Your task to perform on an android device: open app "The Home Depot" Image 0: 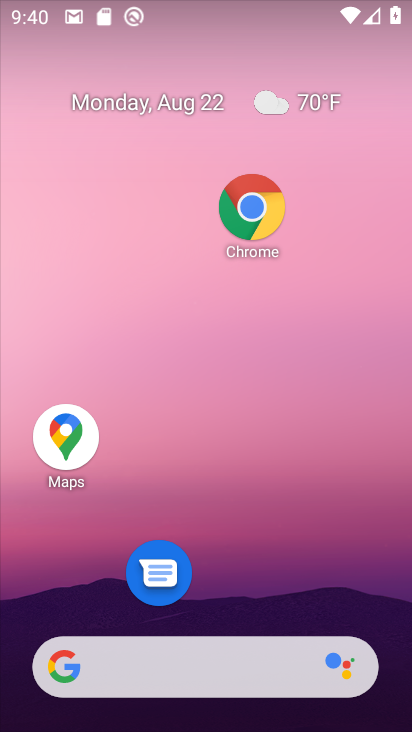
Step 0: drag from (235, 594) to (282, 8)
Your task to perform on an android device: open app "The Home Depot" Image 1: 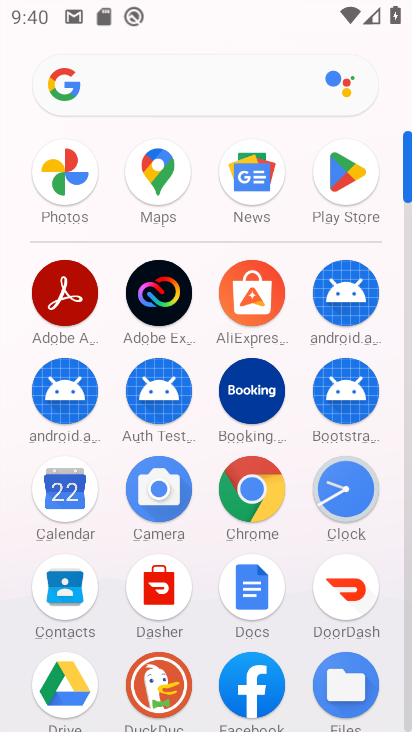
Step 1: click (353, 173)
Your task to perform on an android device: open app "The Home Depot" Image 2: 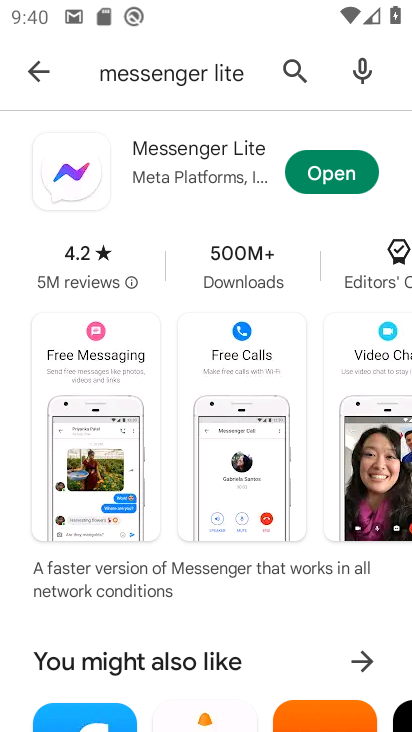
Step 2: click (162, 77)
Your task to perform on an android device: open app "The Home Depot" Image 3: 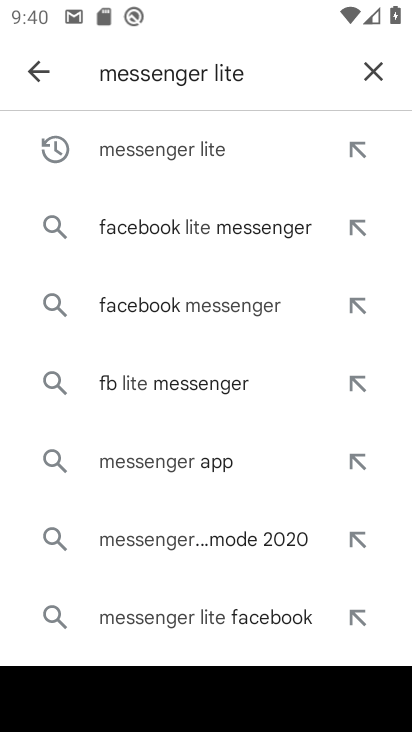
Step 3: click (363, 60)
Your task to perform on an android device: open app "The Home Depot" Image 4: 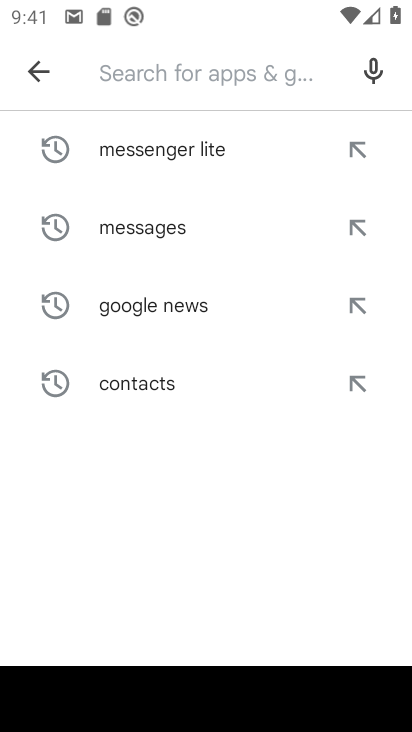
Step 4: type "the home depot"
Your task to perform on an android device: open app "The Home Depot" Image 5: 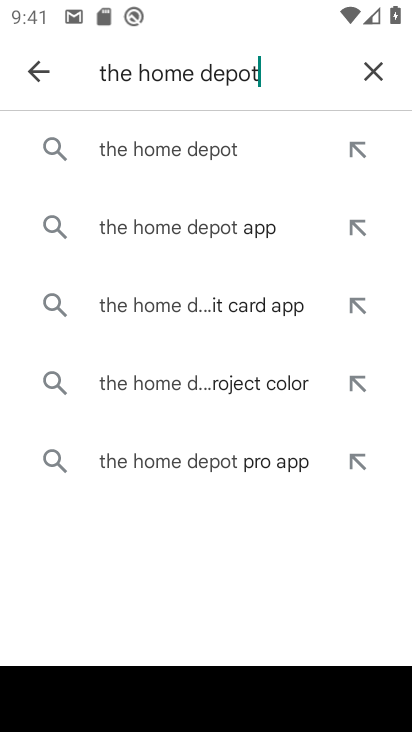
Step 5: click (166, 147)
Your task to perform on an android device: open app "The Home Depot" Image 6: 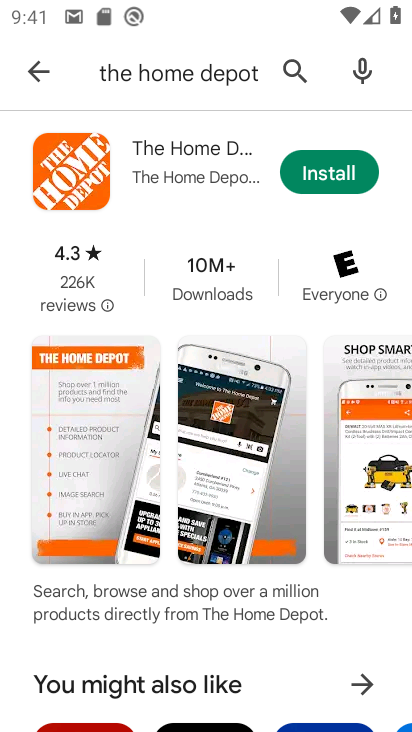
Step 6: task complete